Your task to perform on an android device: Go to sound settings Image 0: 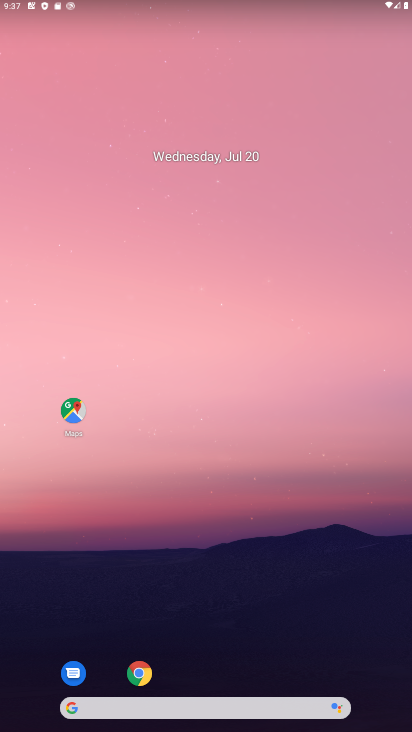
Step 0: drag from (185, 710) to (257, 69)
Your task to perform on an android device: Go to sound settings Image 1: 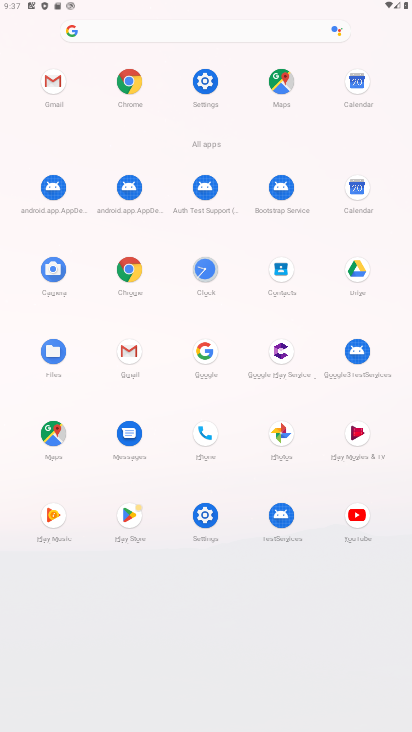
Step 1: click (204, 79)
Your task to perform on an android device: Go to sound settings Image 2: 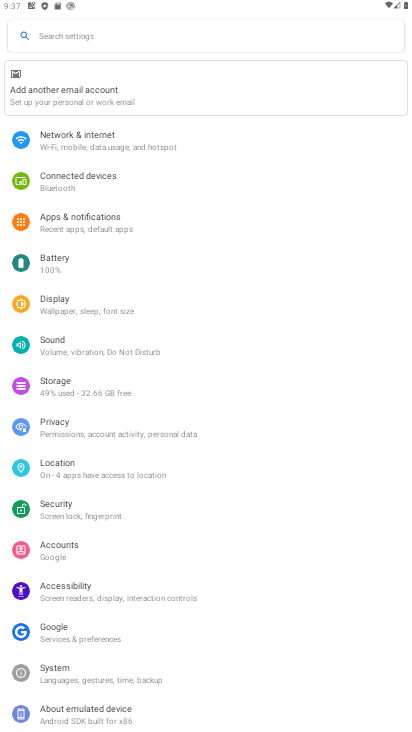
Step 2: click (74, 351)
Your task to perform on an android device: Go to sound settings Image 3: 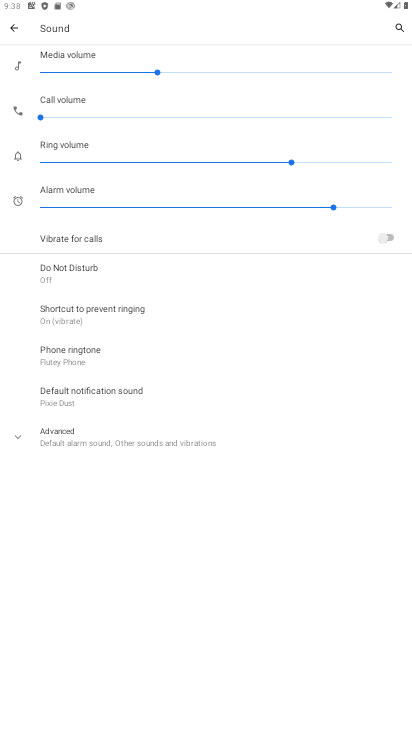
Step 3: task complete